Your task to perform on an android device: Go to notification settings Image 0: 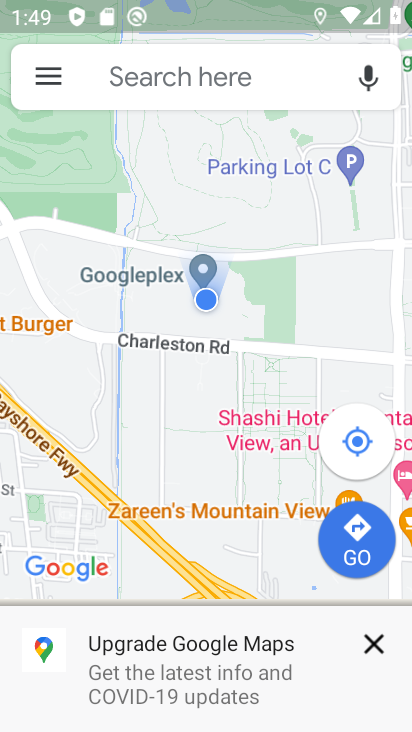
Step 0: press home button
Your task to perform on an android device: Go to notification settings Image 1: 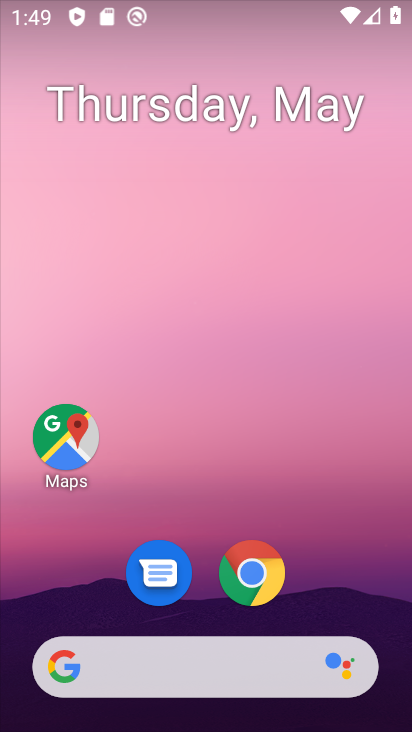
Step 1: drag from (378, 581) to (278, 274)
Your task to perform on an android device: Go to notification settings Image 2: 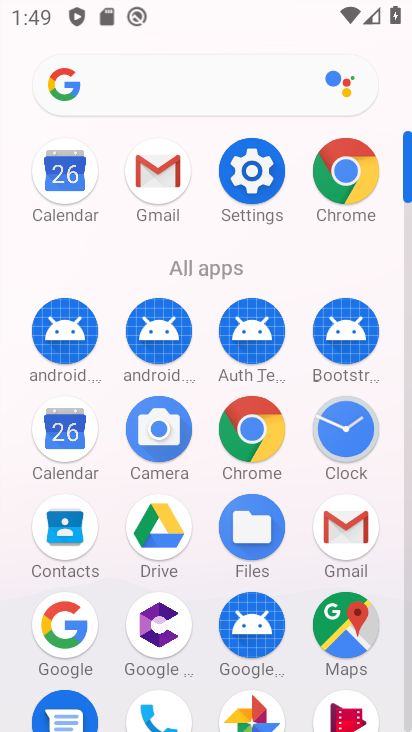
Step 2: click (256, 165)
Your task to perform on an android device: Go to notification settings Image 3: 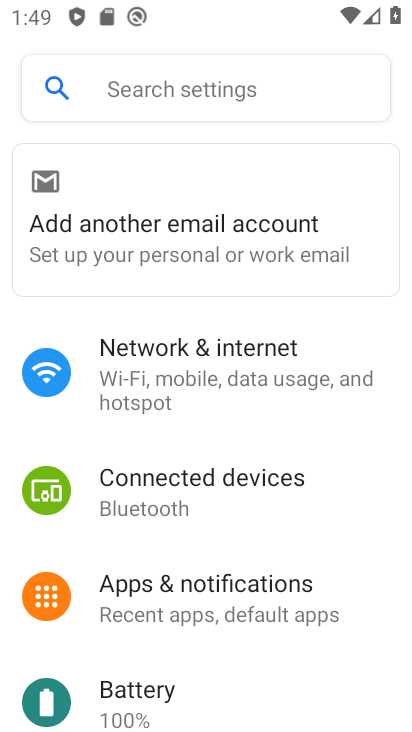
Step 3: click (275, 574)
Your task to perform on an android device: Go to notification settings Image 4: 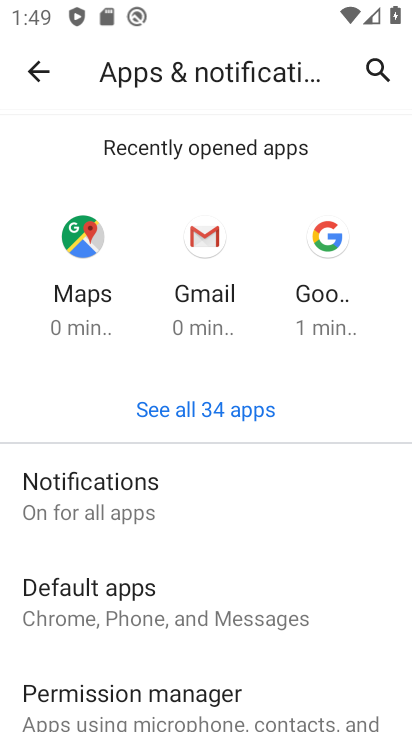
Step 4: click (216, 491)
Your task to perform on an android device: Go to notification settings Image 5: 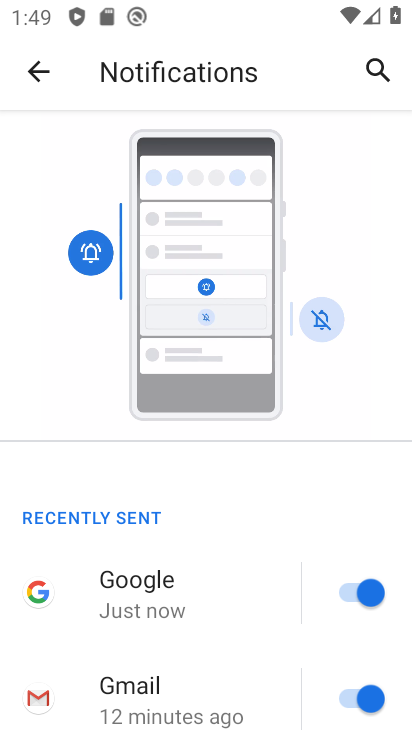
Step 5: drag from (234, 645) to (194, 298)
Your task to perform on an android device: Go to notification settings Image 6: 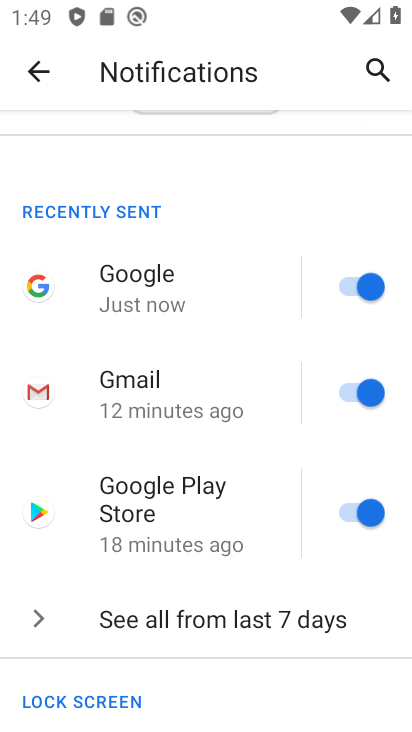
Step 6: drag from (197, 671) to (167, 305)
Your task to perform on an android device: Go to notification settings Image 7: 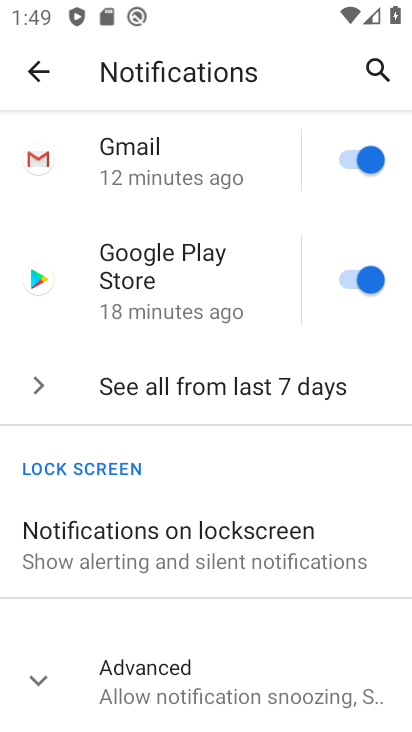
Step 7: drag from (244, 608) to (223, 404)
Your task to perform on an android device: Go to notification settings Image 8: 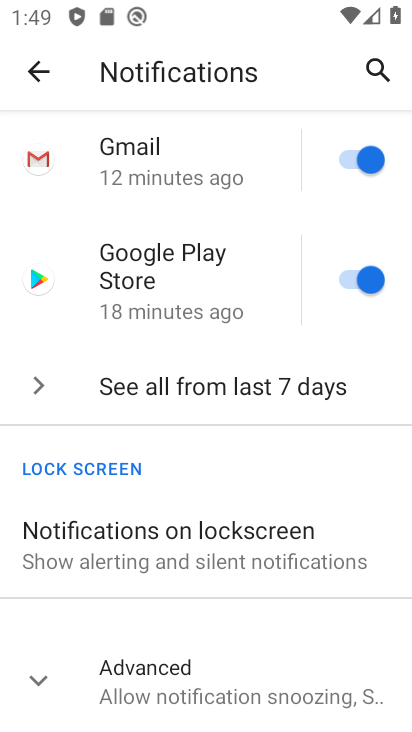
Step 8: click (245, 681)
Your task to perform on an android device: Go to notification settings Image 9: 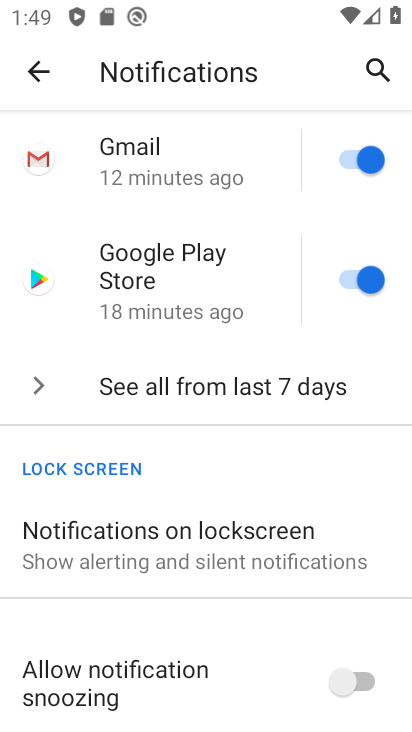
Step 9: task complete